Your task to perform on an android device: Go to internet settings Image 0: 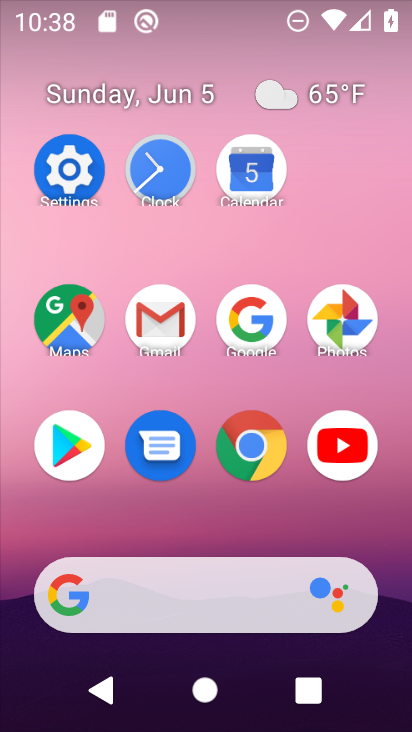
Step 0: click (102, 145)
Your task to perform on an android device: Go to internet settings Image 1: 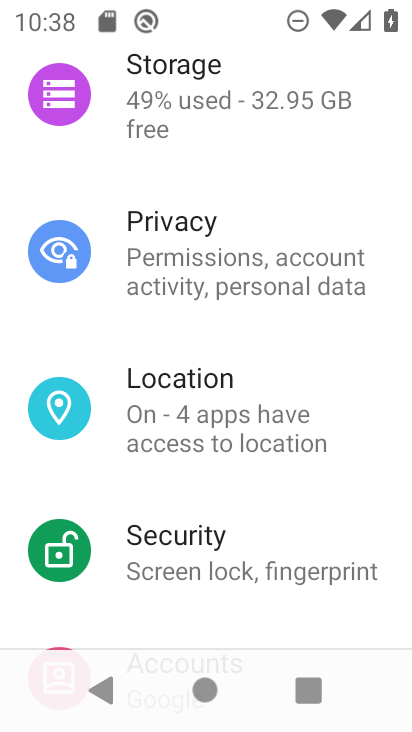
Step 1: drag from (298, 167) to (342, 483)
Your task to perform on an android device: Go to internet settings Image 2: 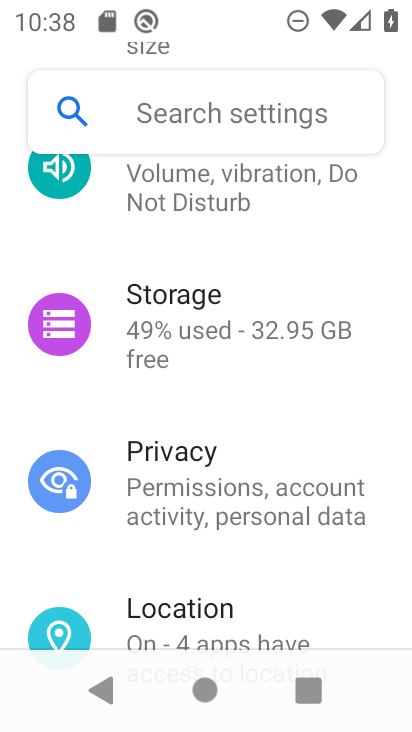
Step 2: drag from (324, 215) to (312, 413)
Your task to perform on an android device: Go to internet settings Image 3: 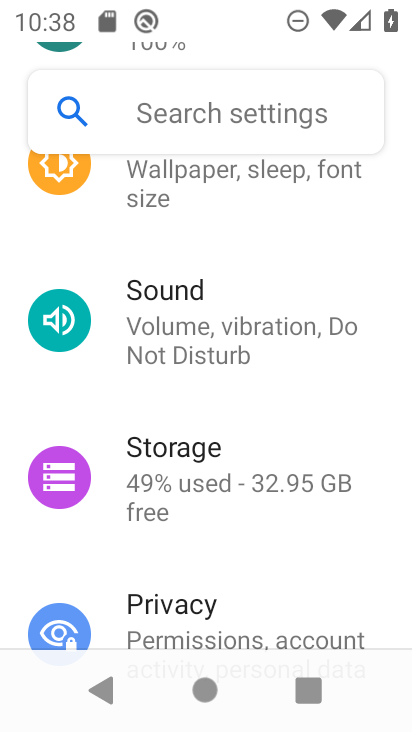
Step 3: drag from (347, 262) to (285, 459)
Your task to perform on an android device: Go to internet settings Image 4: 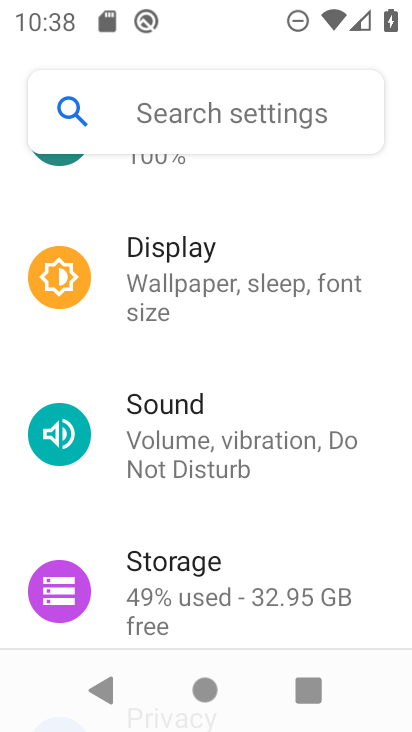
Step 4: drag from (308, 248) to (242, 611)
Your task to perform on an android device: Go to internet settings Image 5: 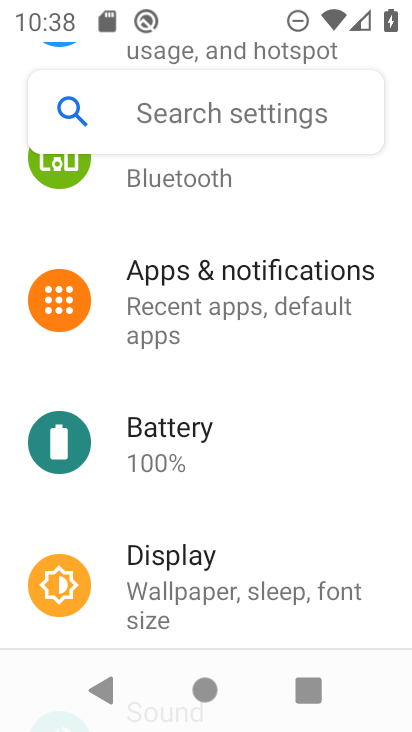
Step 5: drag from (293, 383) to (290, 578)
Your task to perform on an android device: Go to internet settings Image 6: 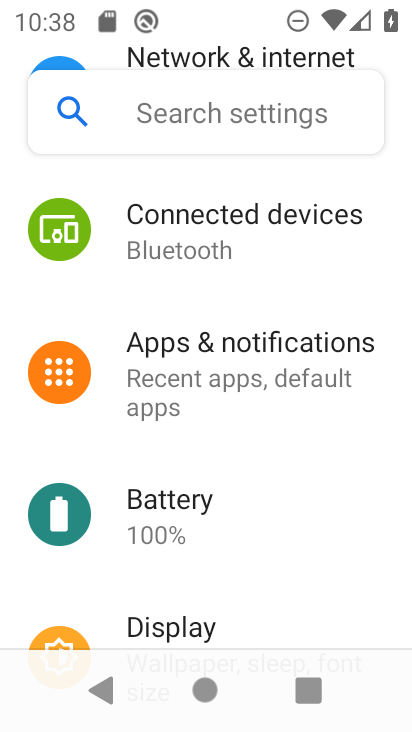
Step 6: drag from (258, 246) to (277, 490)
Your task to perform on an android device: Go to internet settings Image 7: 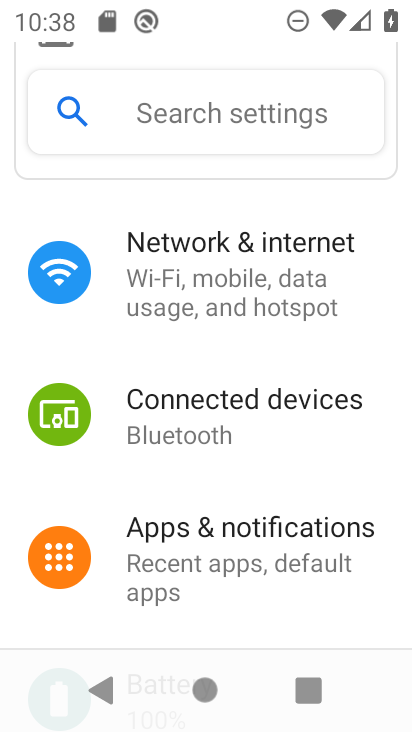
Step 7: click (256, 285)
Your task to perform on an android device: Go to internet settings Image 8: 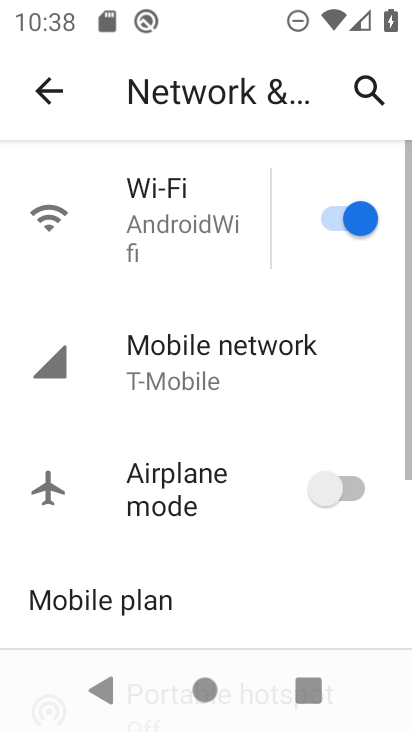
Step 8: task complete